Your task to perform on an android device: Do I have any events today? Image 0: 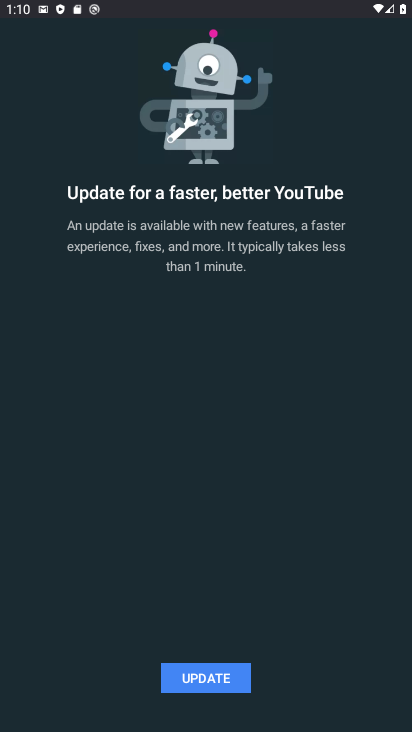
Step 0: press home button
Your task to perform on an android device: Do I have any events today? Image 1: 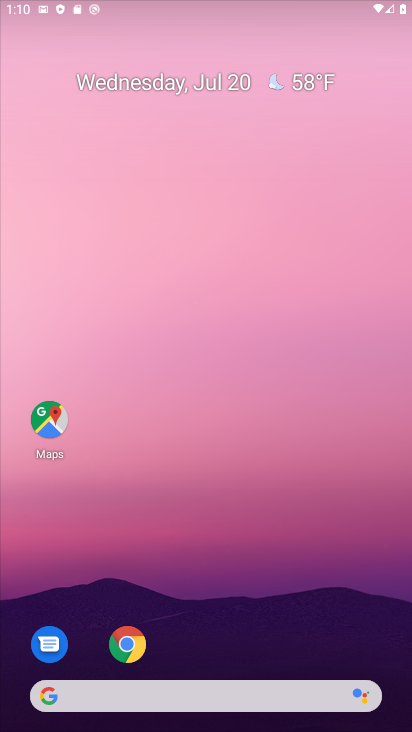
Step 1: drag from (209, 669) to (240, 91)
Your task to perform on an android device: Do I have any events today? Image 2: 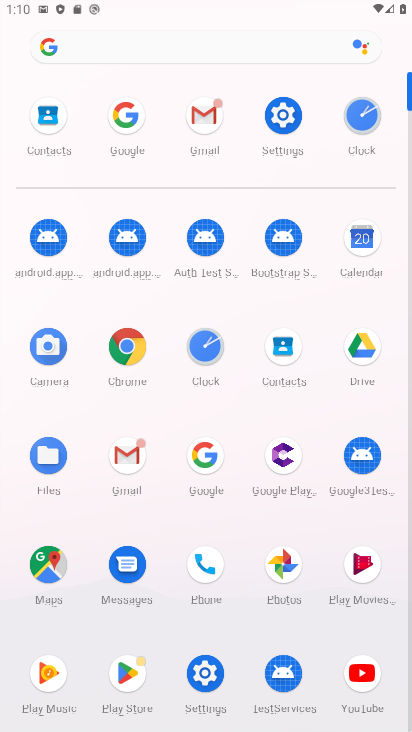
Step 2: click (363, 246)
Your task to perform on an android device: Do I have any events today? Image 3: 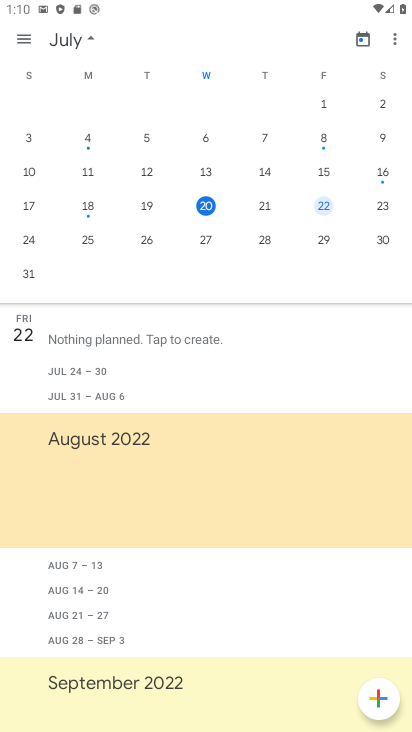
Step 3: click (204, 204)
Your task to perform on an android device: Do I have any events today? Image 4: 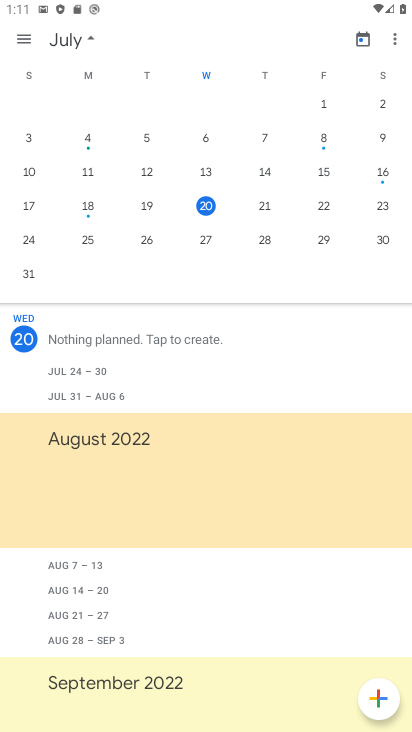
Step 4: task complete